Your task to perform on an android device: turn on showing notifications on the lock screen Image 0: 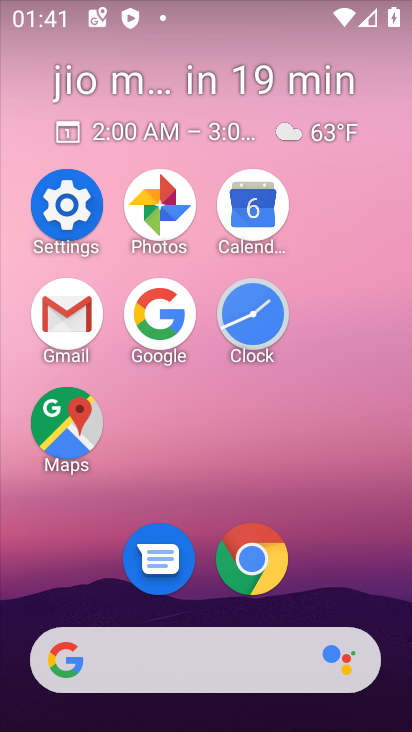
Step 0: click (91, 220)
Your task to perform on an android device: turn on showing notifications on the lock screen Image 1: 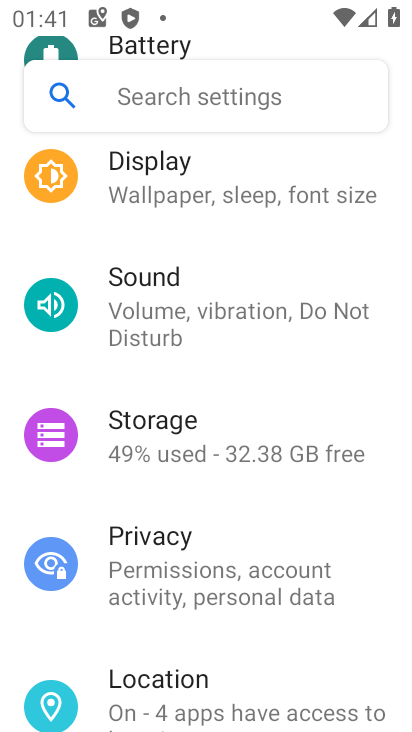
Step 1: drag from (236, 616) to (225, 719)
Your task to perform on an android device: turn on showing notifications on the lock screen Image 2: 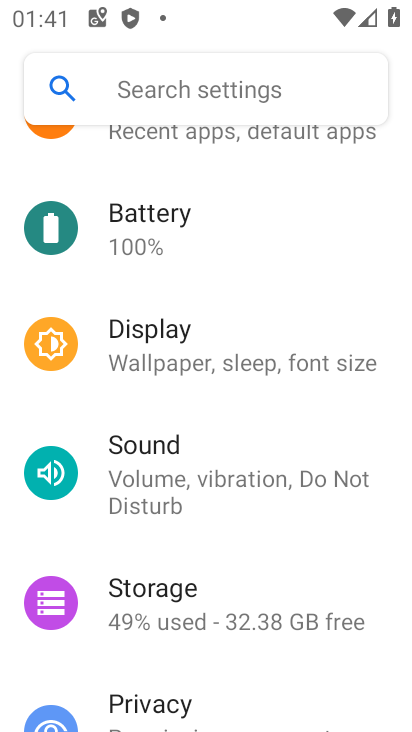
Step 2: drag from (305, 204) to (225, 651)
Your task to perform on an android device: turn on showing notifications on the lock screen Image 3: 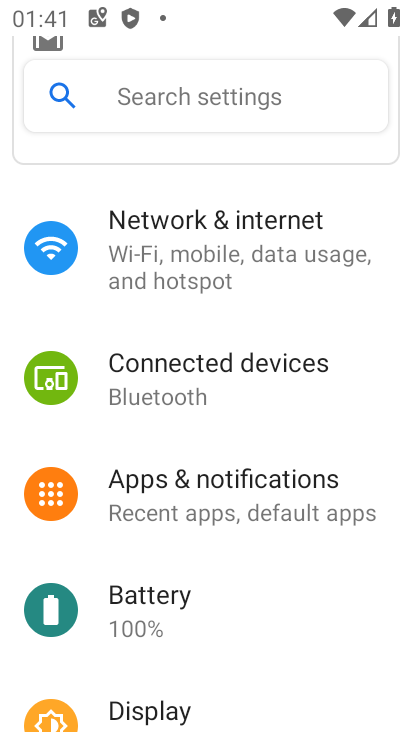
Step 3: click (260, 476)
Your task to perform on an android device: turn on showing notifications on the lock screen Image 4: 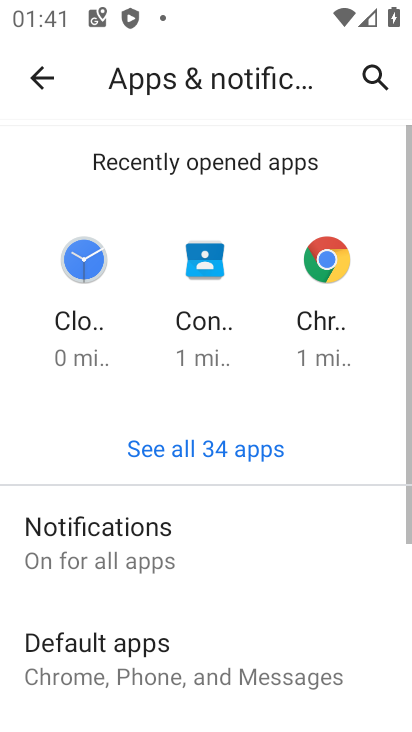
Step 4: click (192, 557)
Your task to perform on an android device: turn on showing notifications on the lock screen Image 5: 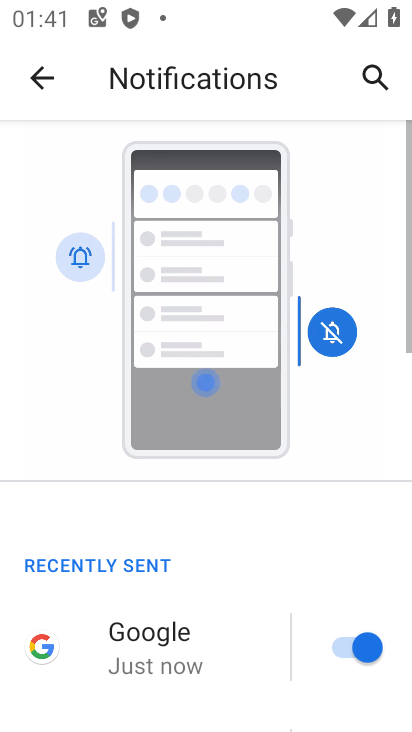
Step 5: drag from (231, 623) to (195, 241)
Your task to perform on an android device: turn on showing notifications on the lock screen Image 6: 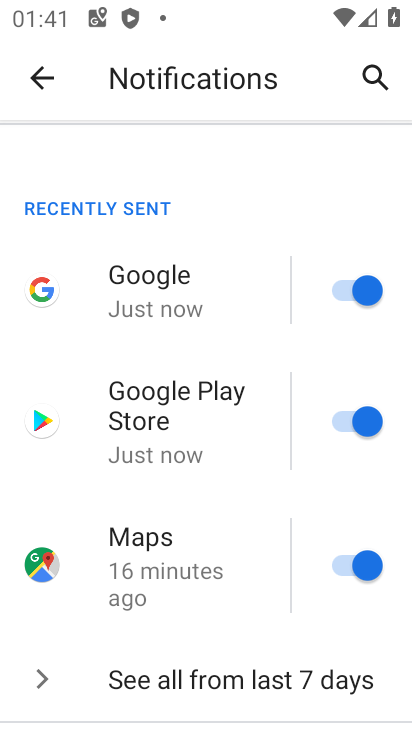
Step 6: drag from (224, 613) to (256, 240)
Your task to perform on an android device: turn on showing notifications on the lock screen Image 7: 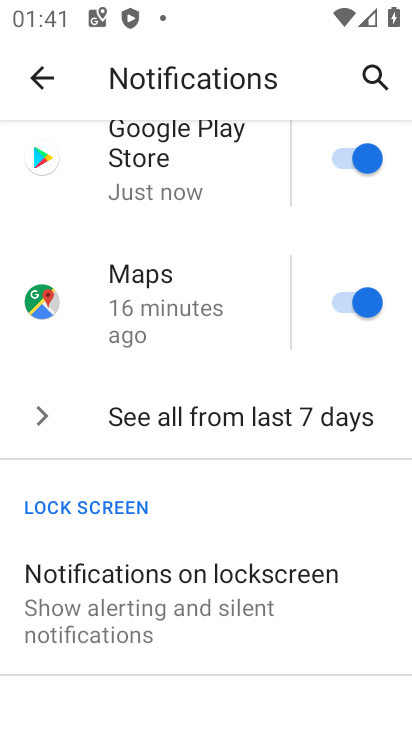
Step 7: drag from (219, 637) to (206, 337)
Your task to perform on an android device: turn on showing notifications on the lock screen Image 8: 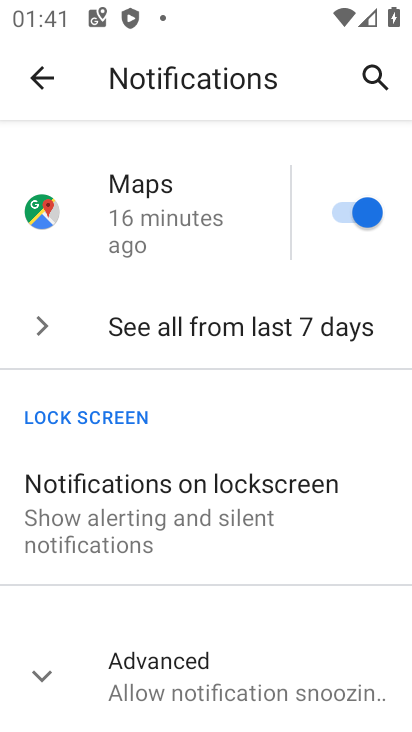
Step 8: click (211, 492)
Your task to perform on an android device: turn on showing notifications on the lock screen Image 9: 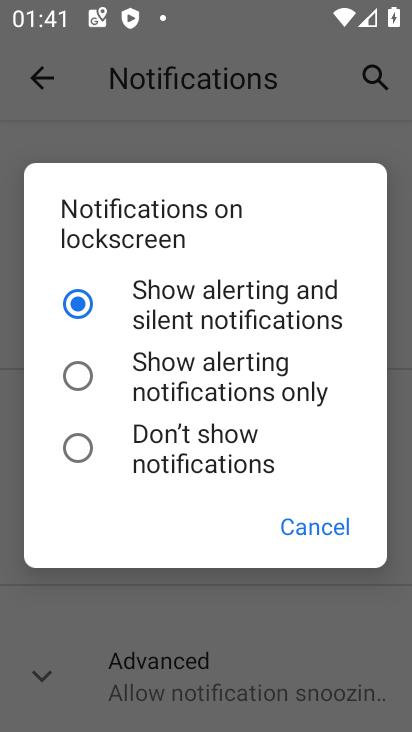
Step 9: click (188, 461)
Your task to perform on an android device: turn on showing notifications on the lock screen Image 10: 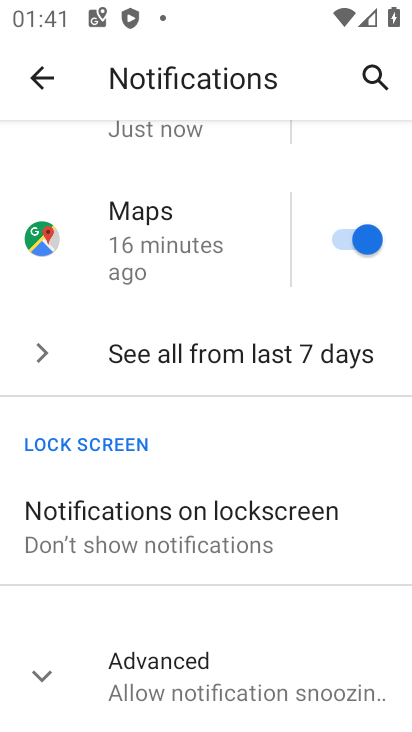
Step 10: click (168, 510)
Your task to perform on an android device: turn on showing notifications on the lock screen Image 11: 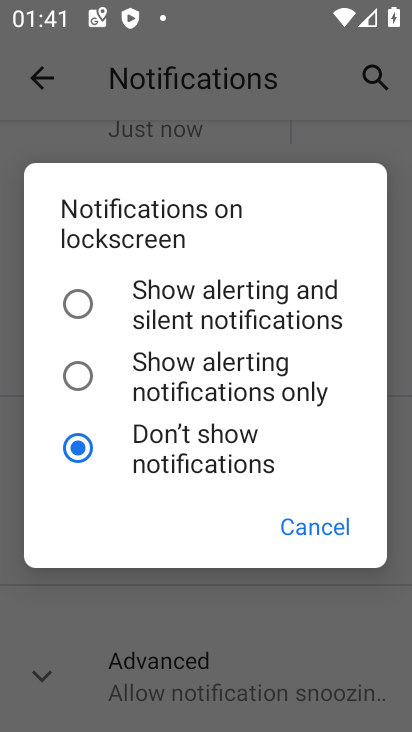
Step 11: click (189, 295)
Your task to perform on an android device: turn on showing notifications on the lock screen Image 12: 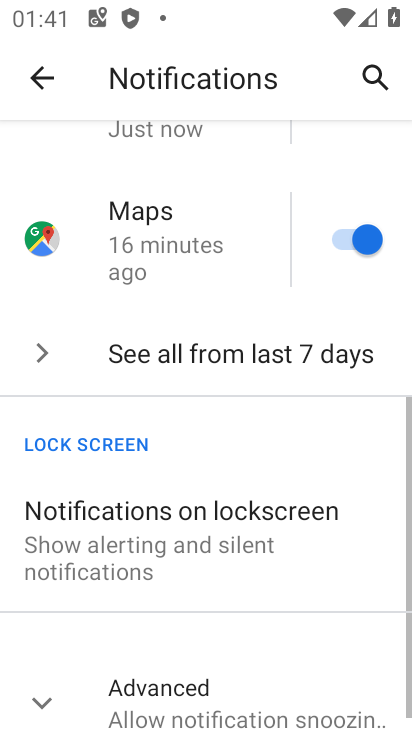
Step 12: task complete